Your task to perform on an android device: change text size in settings app Image 0: 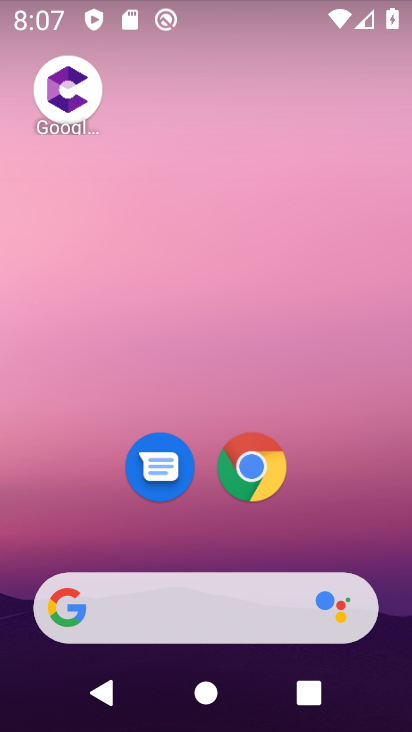
Step 0: drag from (353, 530) to (361, 212)
Your task to perform on an android device: change text size in settings app Image 1: 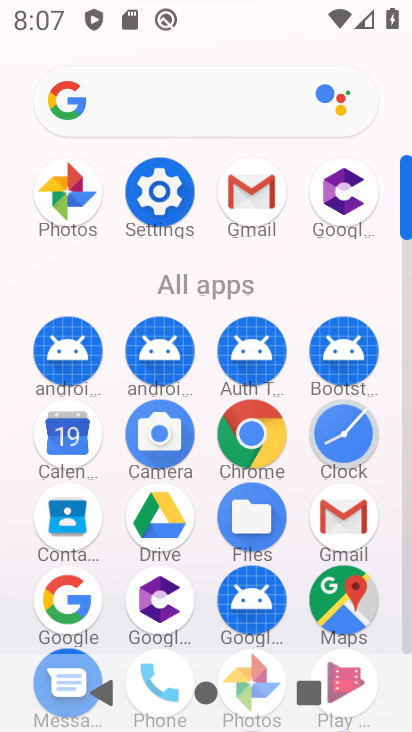
Step 1: click (157, 192)
Your task to perform on an android device: change text size in settings app Image 2: 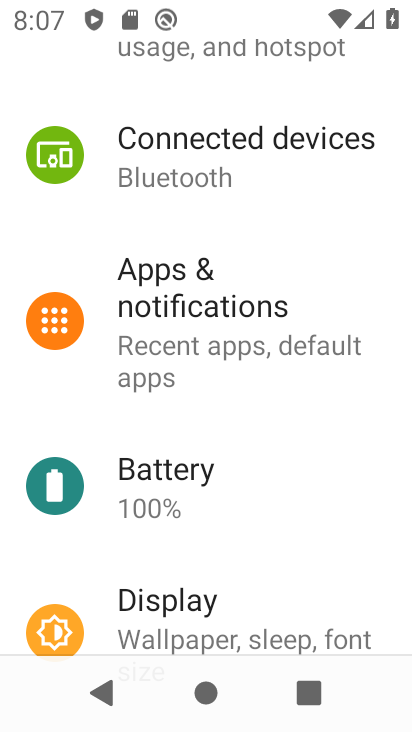
Step 2: drag from (282, 564) to (245, 194)
Your task to perform on an android device: change text size in settings app Image 3: 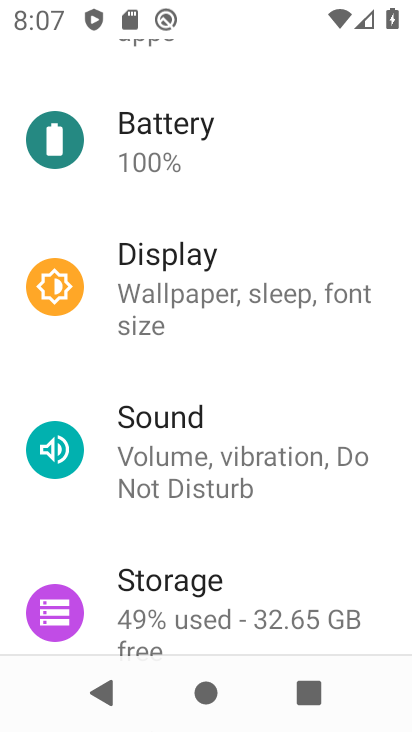
Step 3: drag from (262, 507) to (290, 128)
Your task to perform on an android device: change text size in settings app Image 4: 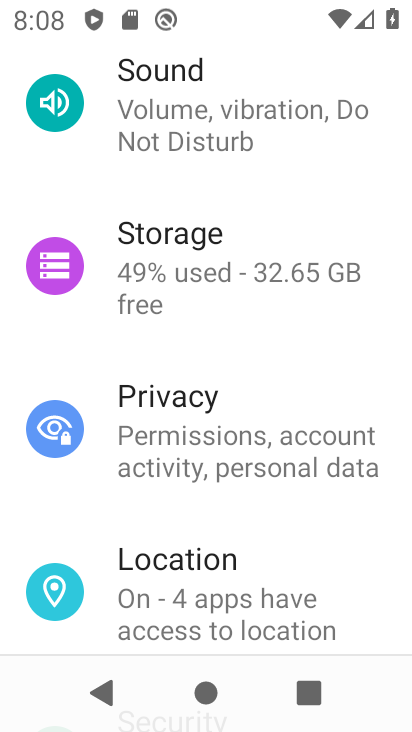
Step 4: drag from (275, 486) to (291, 272)
Your task to perform on an android device: change text size in settings app Image 5: 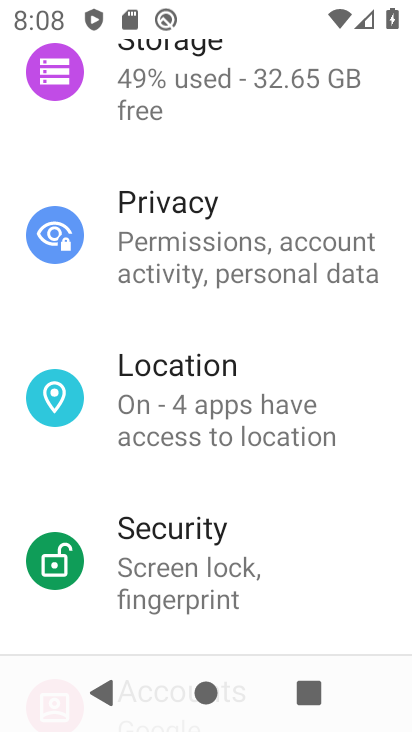
Step 5: drag from (278, 559) to (268, 191)
Your task to perform on an android device: change text size in settings app Image 6: 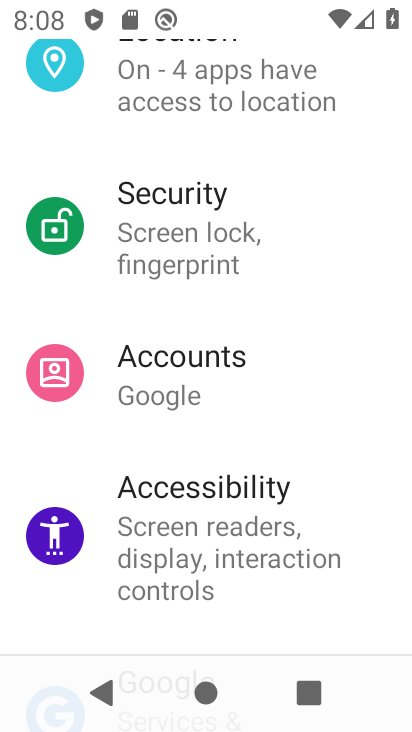
Step 6: drag from (193, 519) to (253, 221)
Your task to perform on an android device: change text size in settings app Image 7: 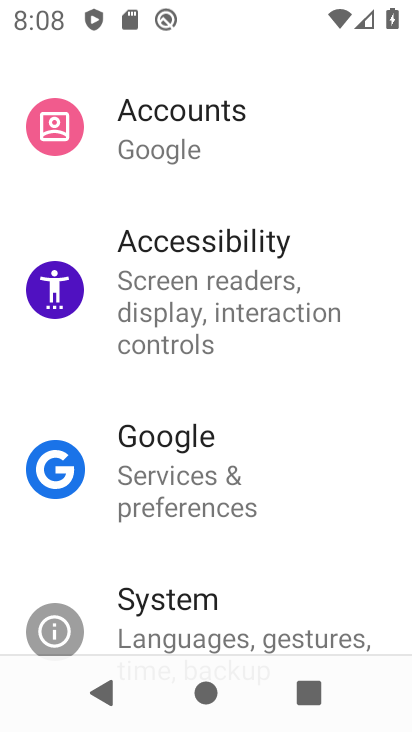
Step 7: drag from (219, 514) to (277, 241)
Your task to perform on an android device: change text size in settings app Image 8: 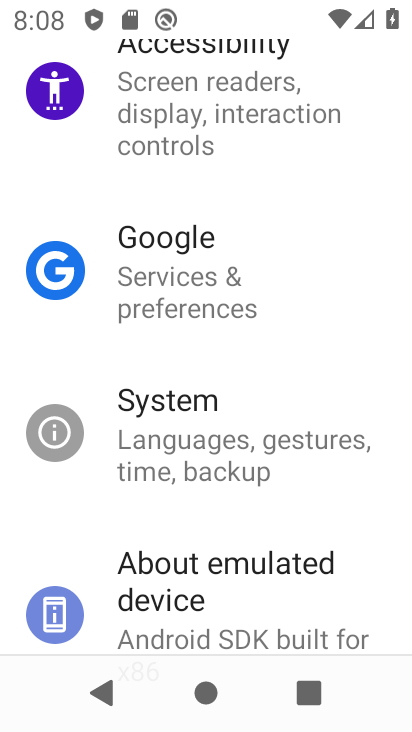
Step 8: click (193, 417)
Your task to perform on an android device: change text size in settings app Image 9: 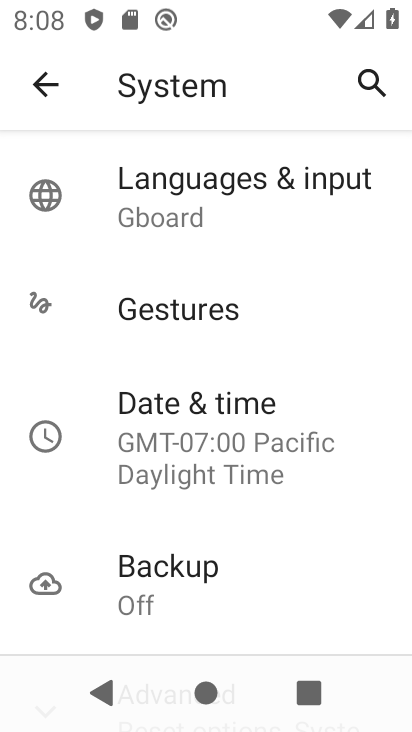
Step 9: click (46, 79)
Your task to perform on an android device: change text size in settings app Image 10: 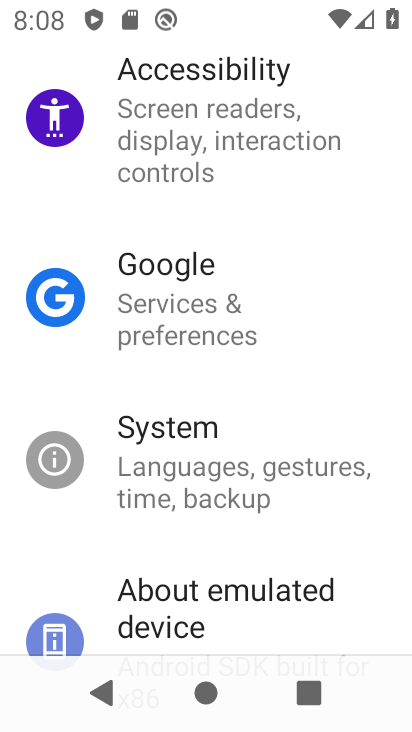
Step 10: click (212, 525)
Your task to perform on an android device: change text size in settings app Image 11: 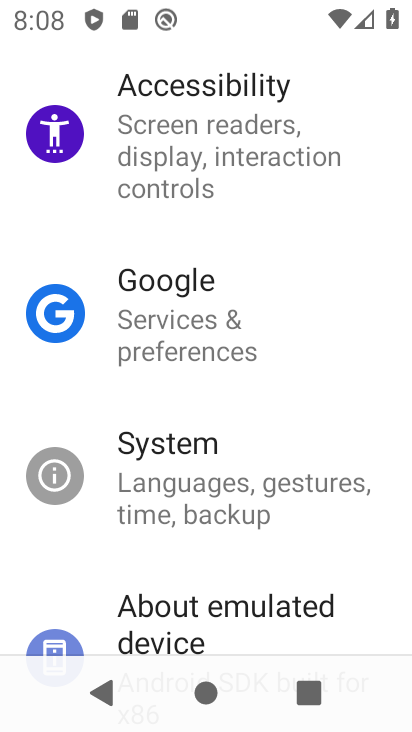
Step 11: click (209, 147)
Your task to perform on an android device: change text size in settings app Image 12: 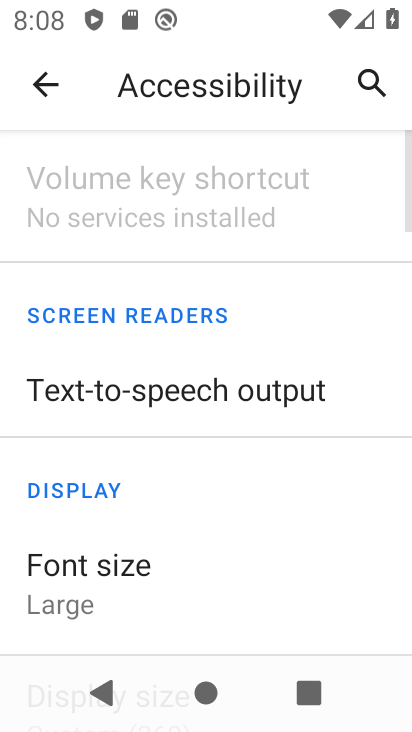
Step 12: click (83, 592)
Your task to perform on an android device: change text size in settings app Image 13: 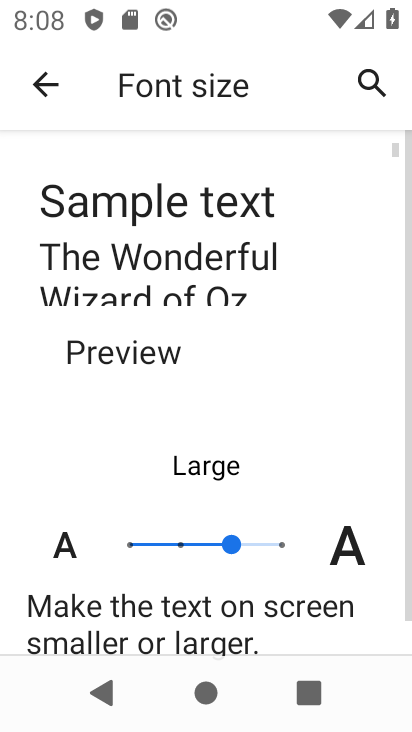
Step 13: click (190, 554)
Your task to perform on an android device: change text size in settings app Image 14: 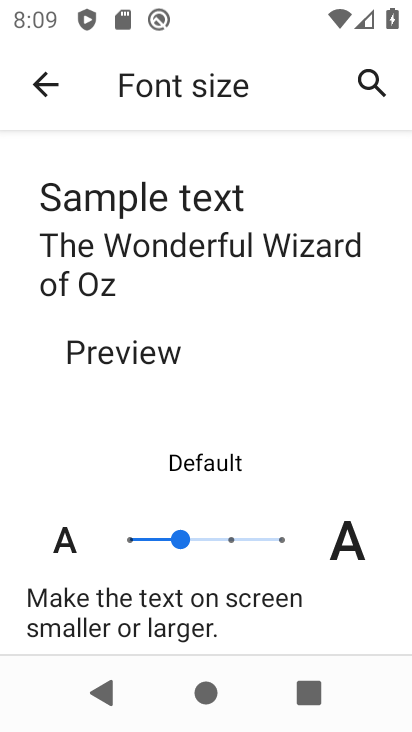
Step 14: task complete